Your task to perform on an android device: Set the phone to "Do not disturb". Image 0: 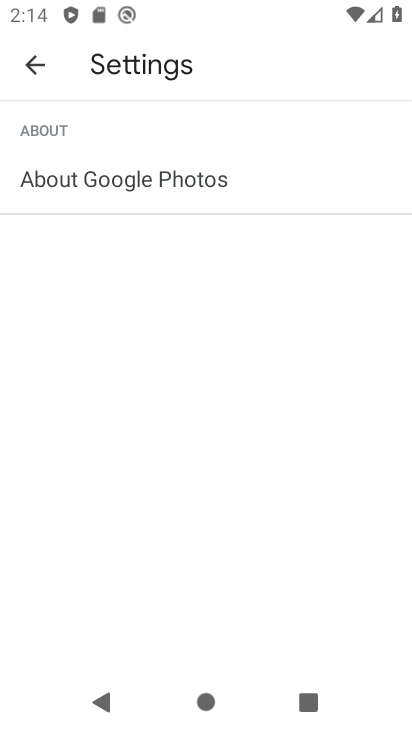
Step 0: press home button
Your task to perform on an android device: Set the phone to "Do not disturb". Image 1: 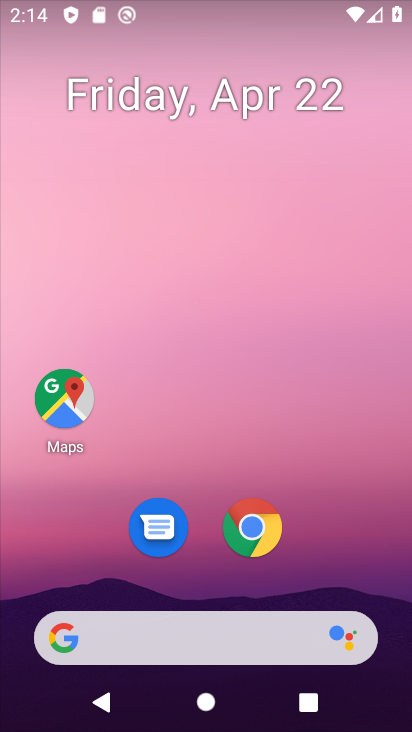
Step 1: drag from (168, 8) to (208, 525)
Your task to perform on an android device: Set the phone to "Do not disturb". Image 2: 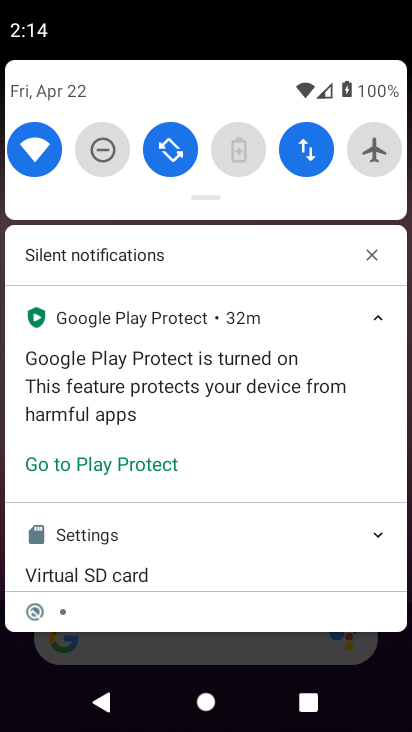
Step 2: drag from (65, 185) to (65, 489)
Your task to perform on an android device: Set the phone to "Do not disturb". Image 3: 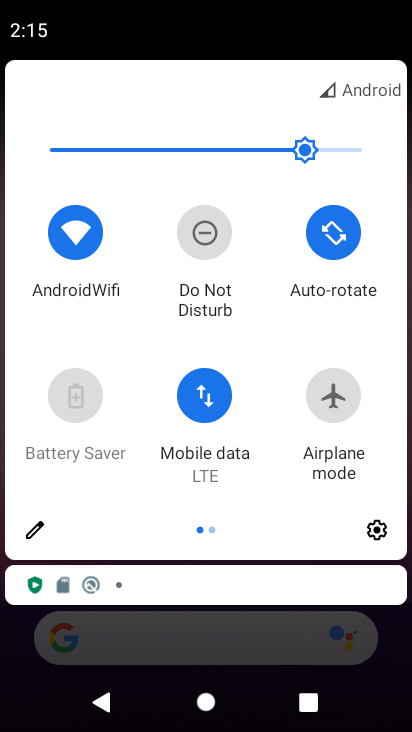
Step 3: click (208, 231)
Your task to perform on an android device: Set the phone to "Do not disturb". Image 4: 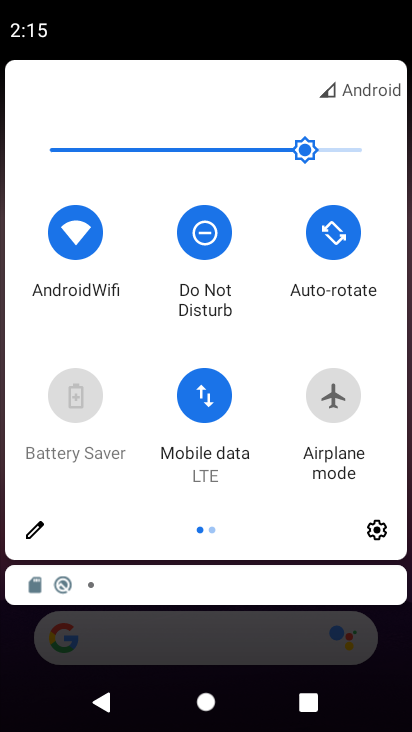
Step 4: task complete